Your task to perform on an android device: clear history in the chrome app Image 0: 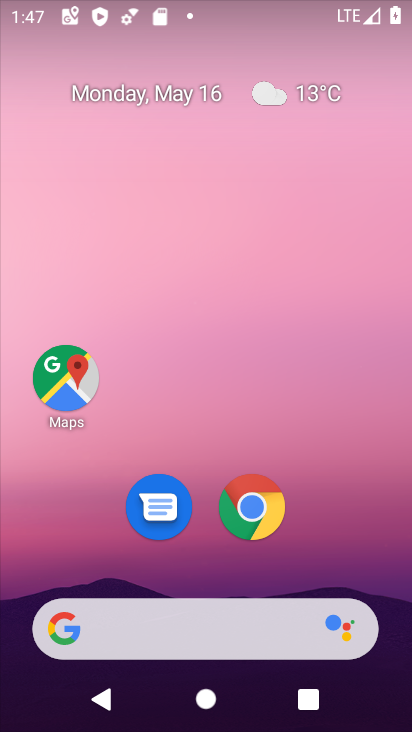
Step 0: click (261, 508)
Your task to perform on an android device: clear history in the chrome app Image 1: 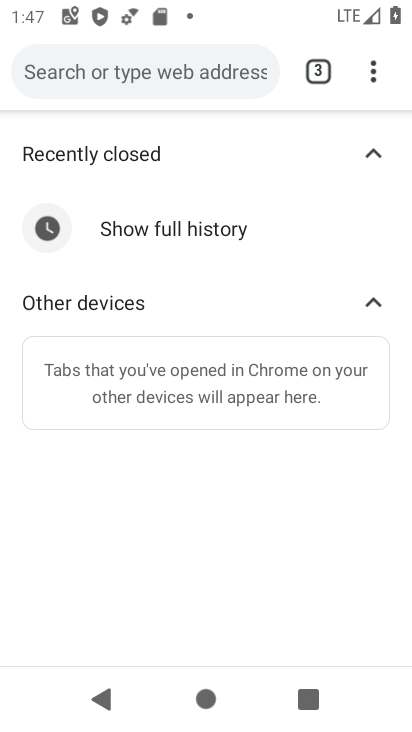
Step 1: click (368, 78)
Your task to perform on an android device: clear history in the chrome app Image 2: 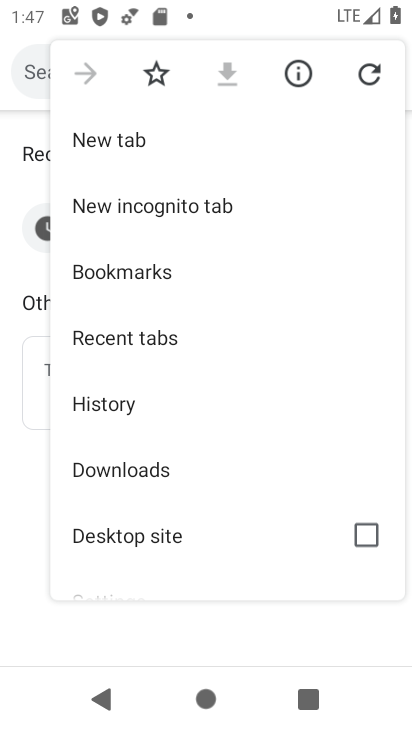
Step 2: click (149, 396)
Your task to perform on an android device: clear history in the chrome app Image 3: 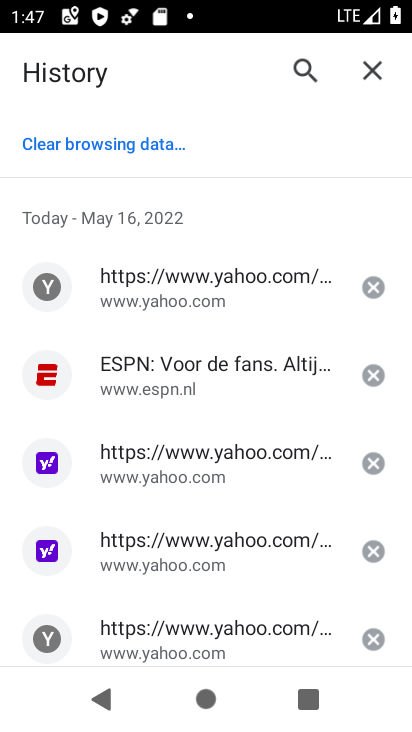
Step 3: click (110, 146)
Your task to perform on an android device: clear history in the chrome app Image 4: 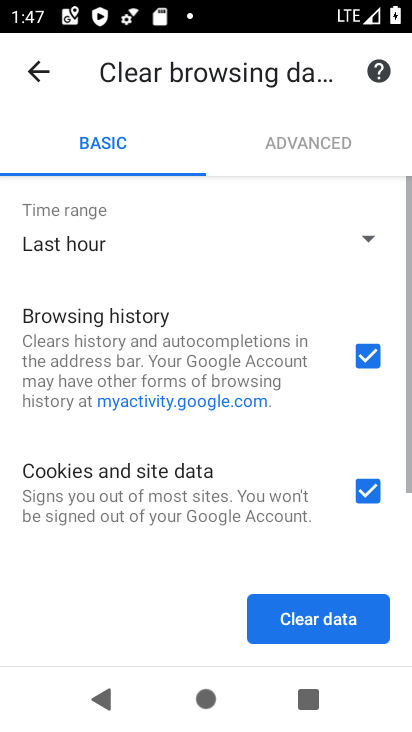
Step 4: click (352, 614)
Your task to perform on an android device: clear history in the chrome app Image 5: 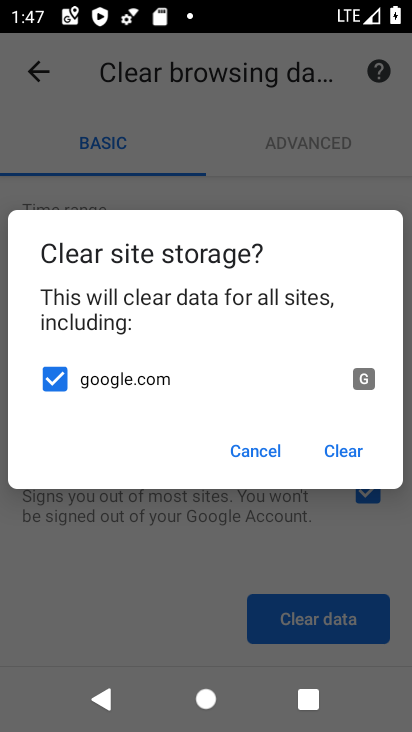
Step 5: click (351, 446)
Your task to perform on an android device: clear history in the chrome app Image 6: 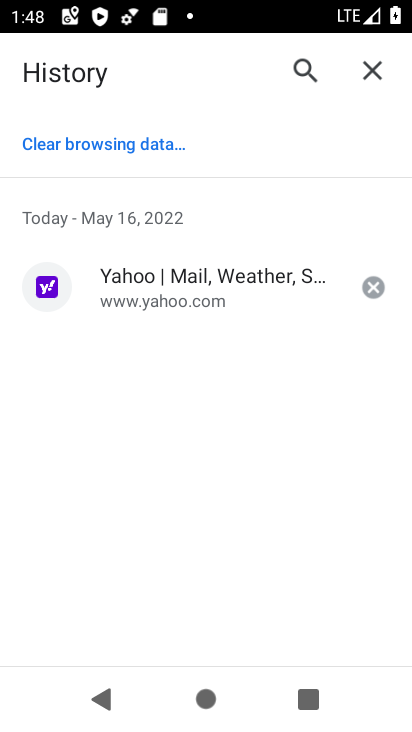
Step 6: task complete